Your task to perform on an android device: Search for seafood restaurants on Google Maps Image 0: 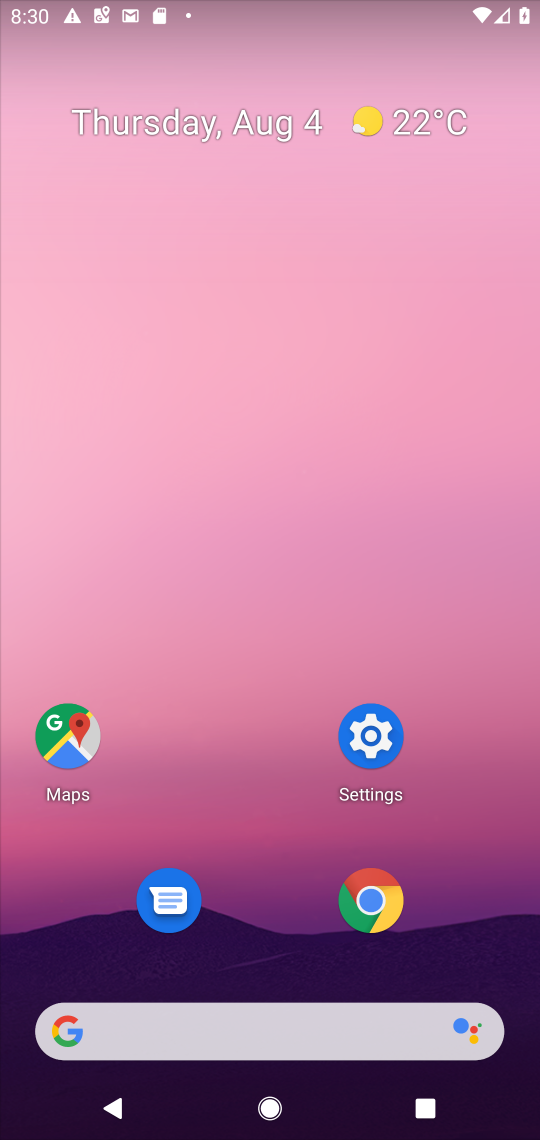
Step 0: click (63, 732)
Your task to perform on an android device: Search for seafood restaurants on Google Maps Image 1: 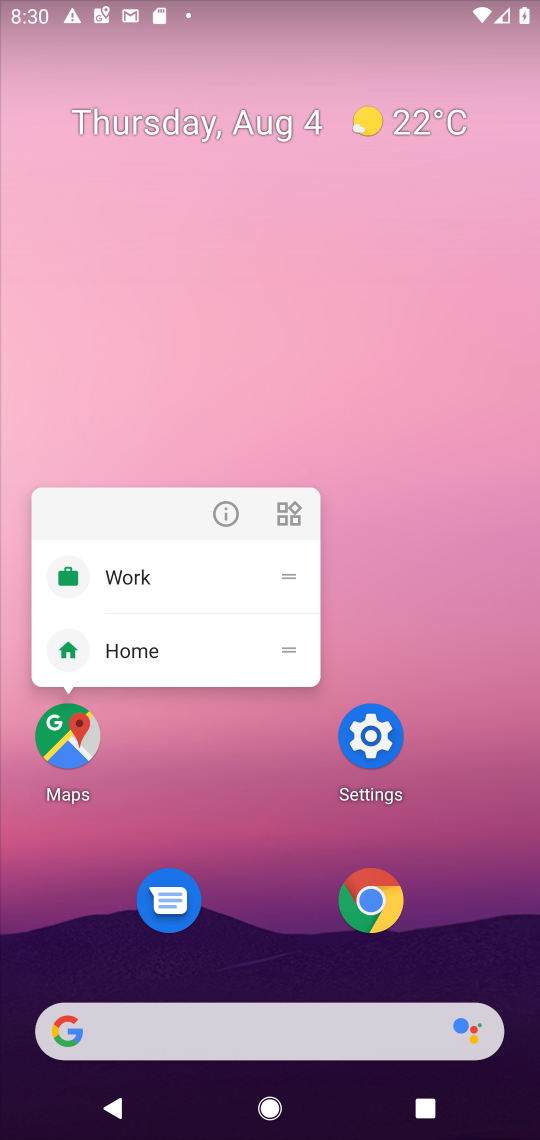
Step 1: click (63, 732)
Your task to perform on an android device: Search for seafood restaurants on Google Maps Image 2: 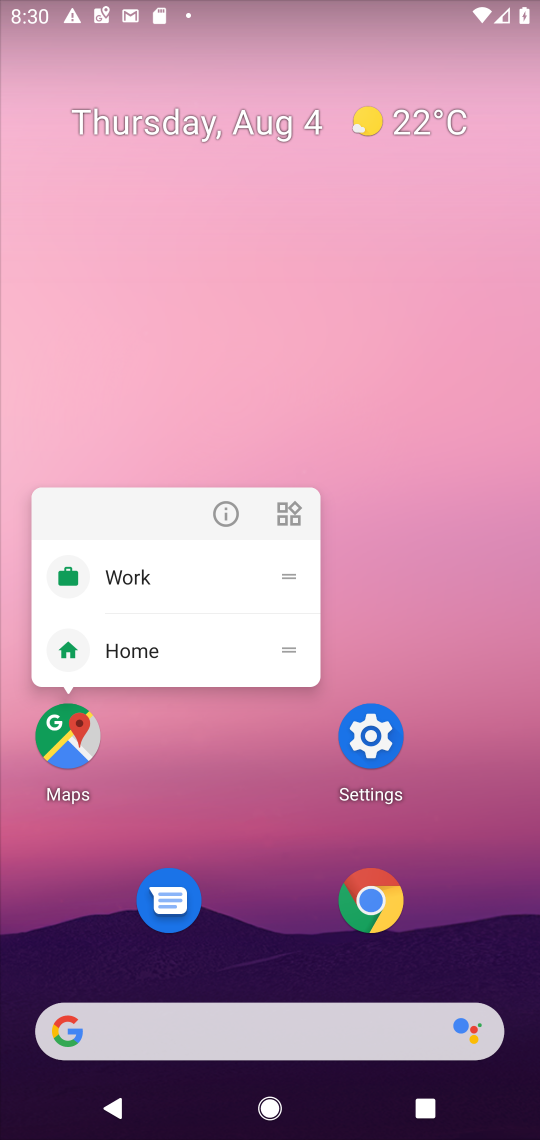
Step 2: click (63, 732)
Your task to perform on an android device: Search for seafood restaurants on Google Maps Image 3: 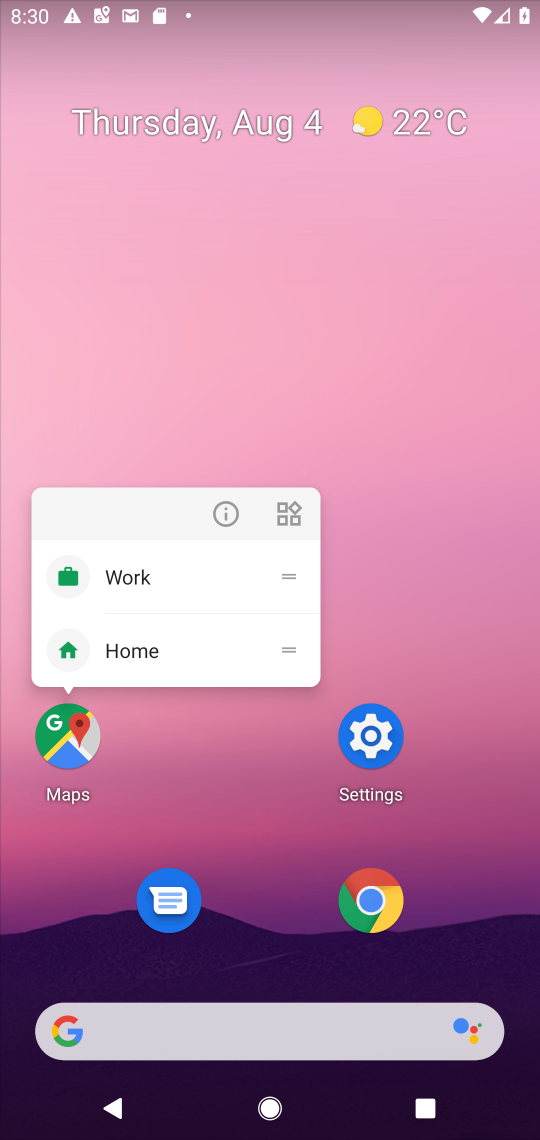
Step 3: click (59, 758)
Your task to perform on an android device: Search for seafood restaurants on Google Maps Image 4: 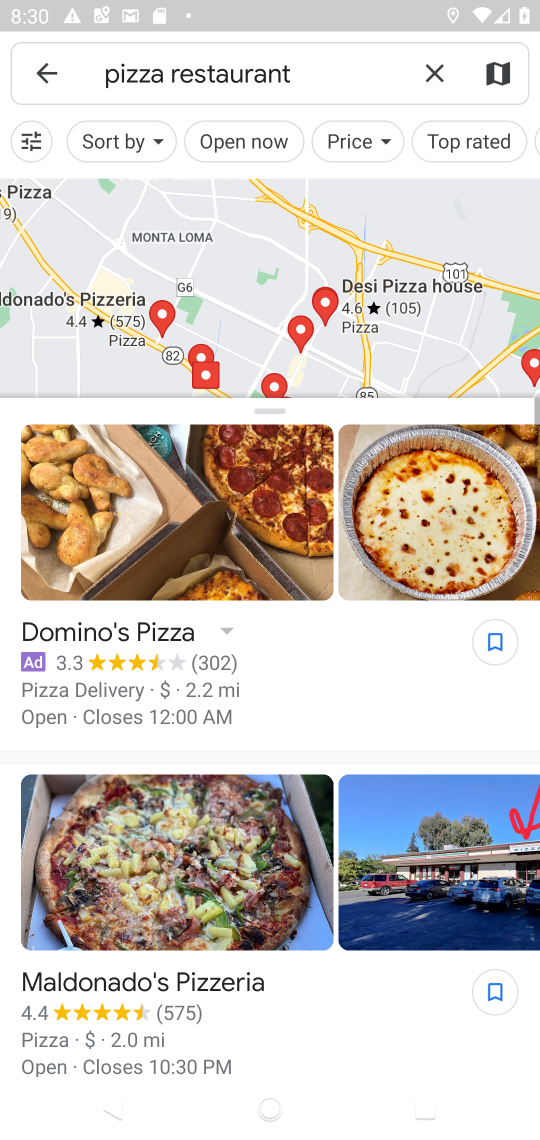
Step 4: click (433, 70)
Your task to perform on an android device: Search for seafood restaurants on Google Maps Image 5: 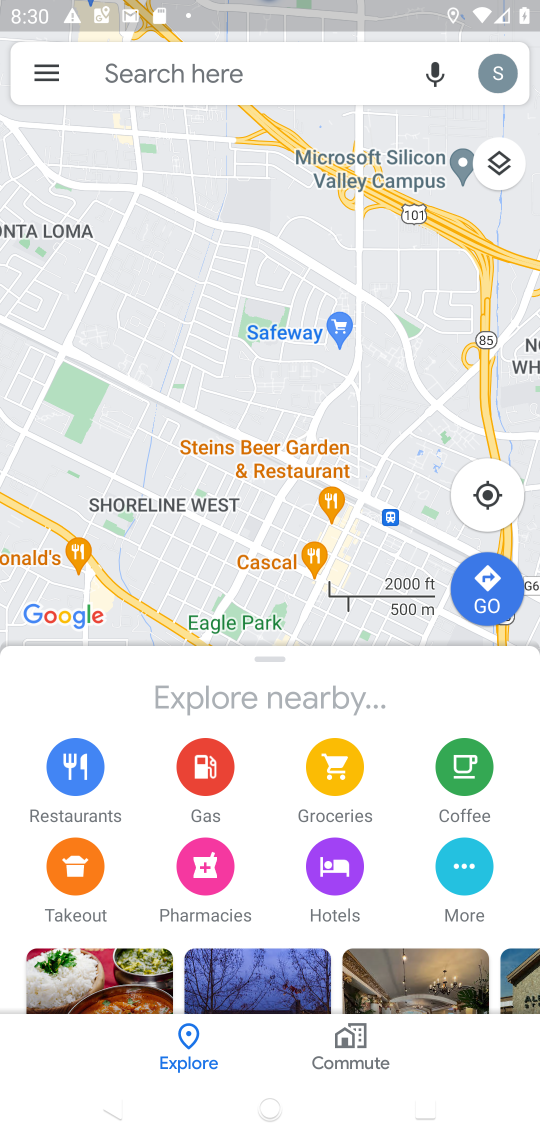
Step 5: click (176, 73)
Your task to perform on an android device: Search for seafood restaurants on Google Maps Image 6: 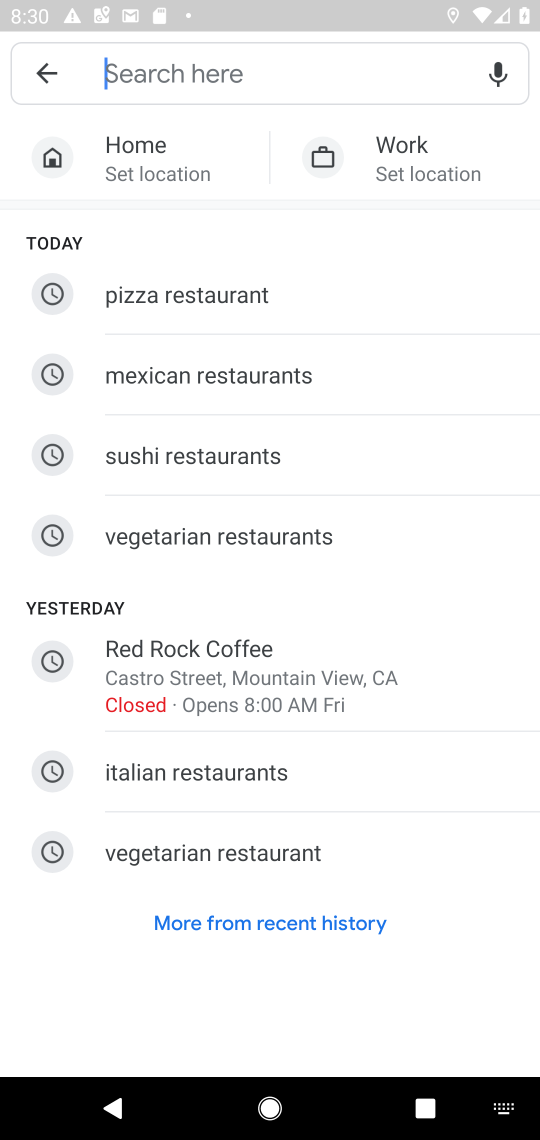
Step 6: type "seafood restaurants"
Your task to perform on an android device: Search for seafood restaurants on Google Maps Image 7: 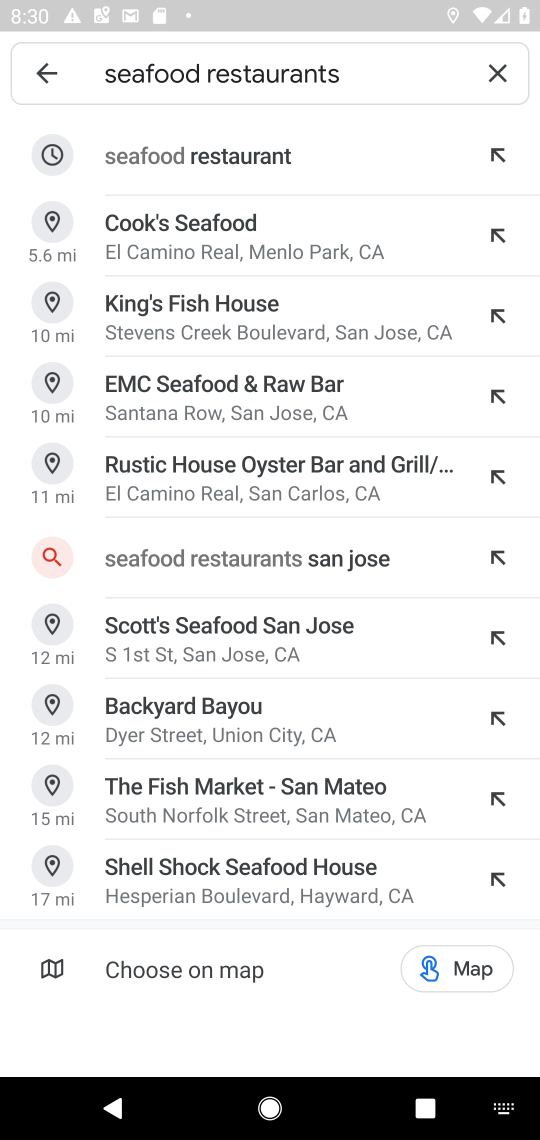
Step 7: click (200, 149)
Your task to perform on an android device: Search for seafood restaurants on Google Maps Image 8: 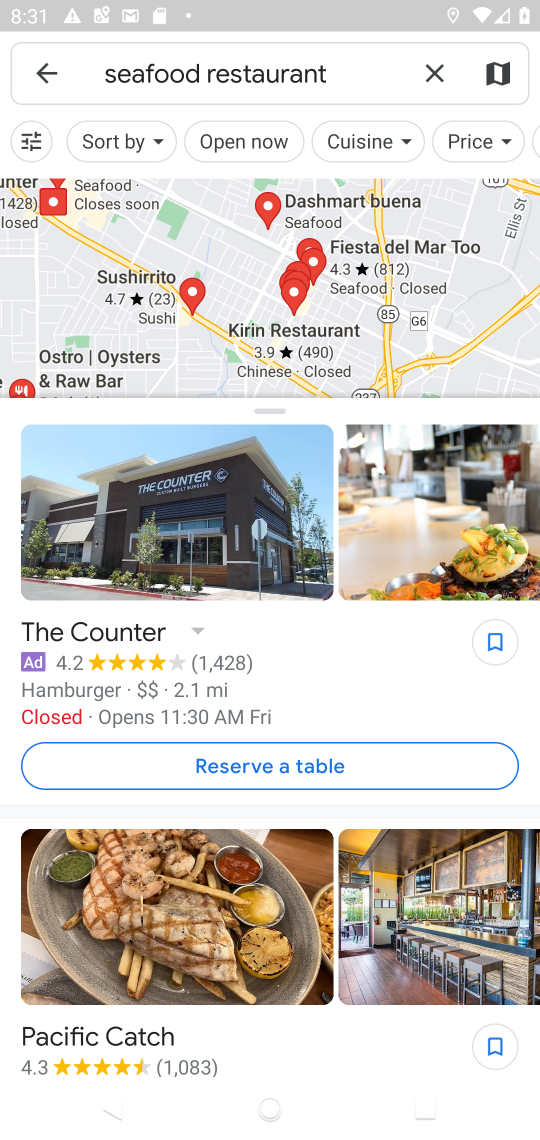
Step 8: task complete